Your task to perform on an android device: Open Google Chrome and open the bookmarks view Image 0: 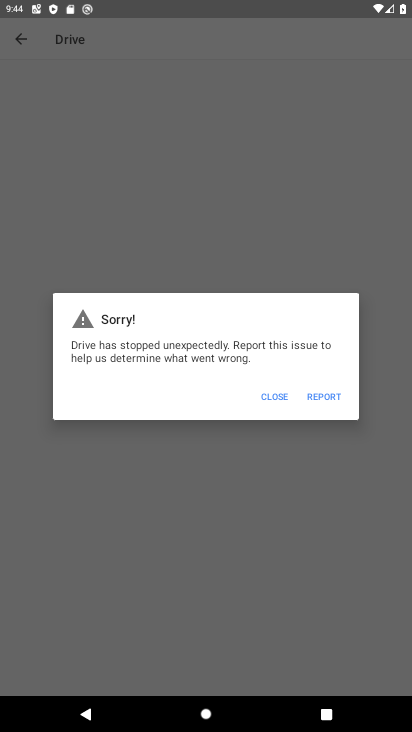
Step 0: press home button
Your task to perform on an android device: Open Google Chrome and open the bookmarks view Image 1: 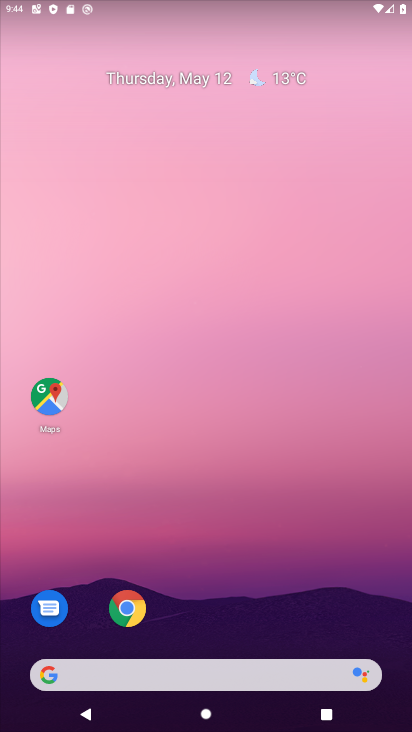
Step 1: click (127, 610)
Your task to perform on an android device: Open Google Chrome and open the bookmarks view Image 2: 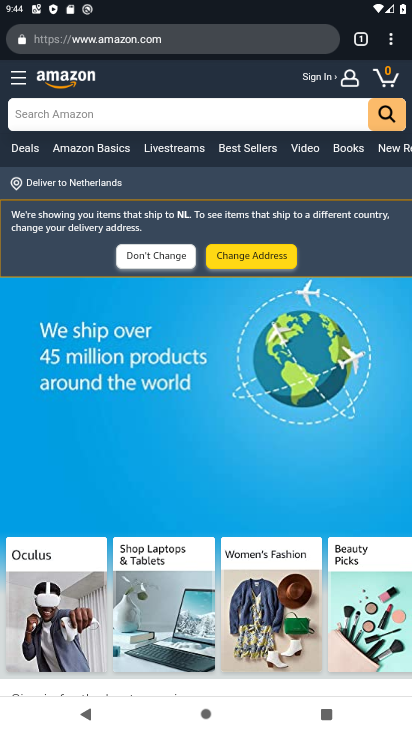
Step 2: click (382, 42)
Your task to perform on an android device: Open Google Chrome and open the bookmarks view Image 3: 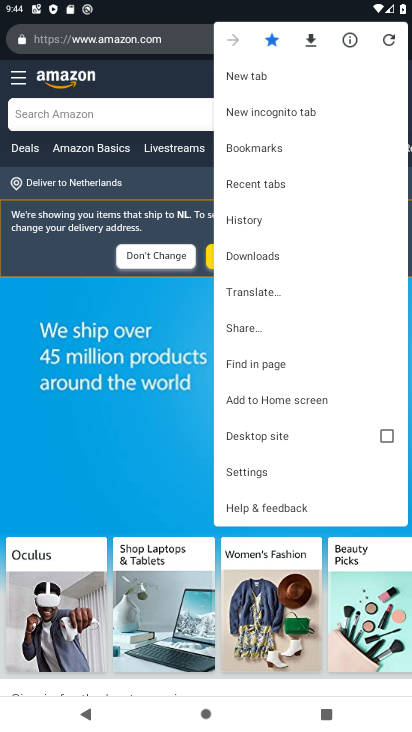
Step 3: click (272, 148)
Your task to perform on an android device: Open Google Chrome and open the bookmarks view Image 4: 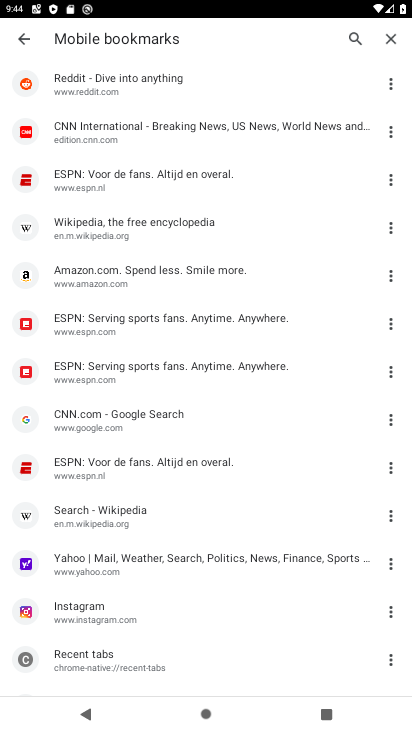
Step 4: click (165, 223)
Your task to perform on an android device: Open Google Chrome and open the bookmarks view Image 5: 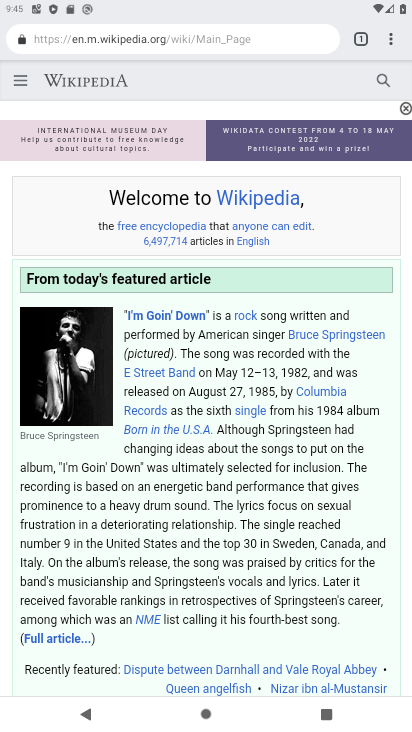
Step 5: task complete